Your task to perform on an android device: toggle notification dots Image 0: 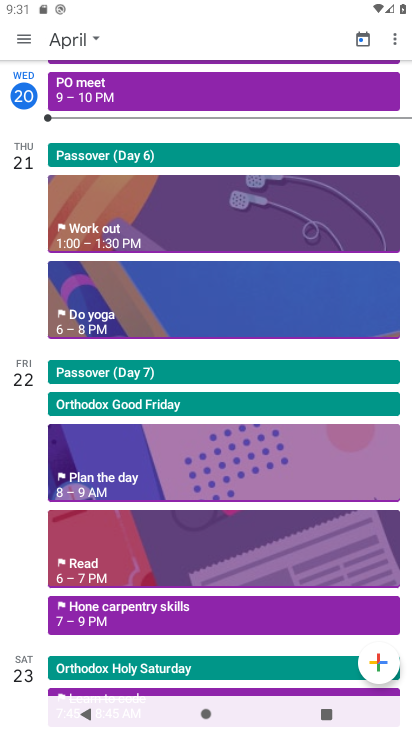
Step 0: click (126, 607)
Your task to perform on an android device: toggle notification dots Image 1: 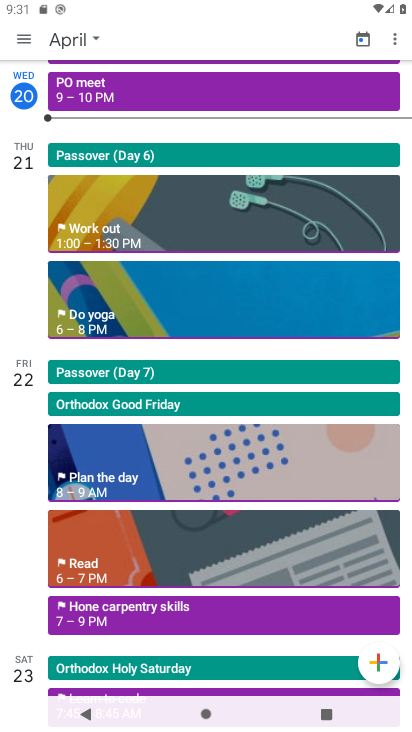
Step 1: press home button
Your task to perform on an android device: toggle notification dots Image 2: 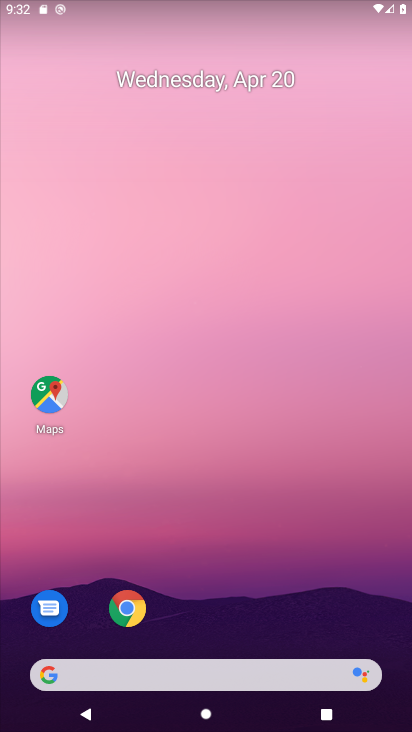
Step 2: drag from (155, 595) to (153, 145)
Your task to perform on an android device: toggle notification dots Image 3: 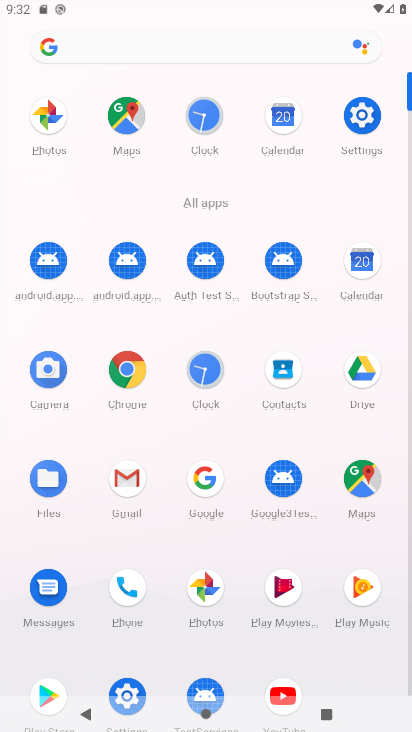
Step 3: click (354, 122)
Your task to perform on an android device: toggle notification dots Image 4: 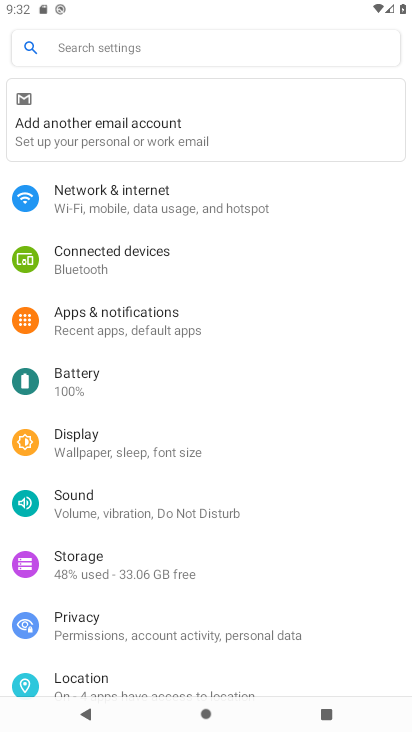
Step 4: click (95, 328)
Your task to perform on an android device: toggle notification dots Image 5: 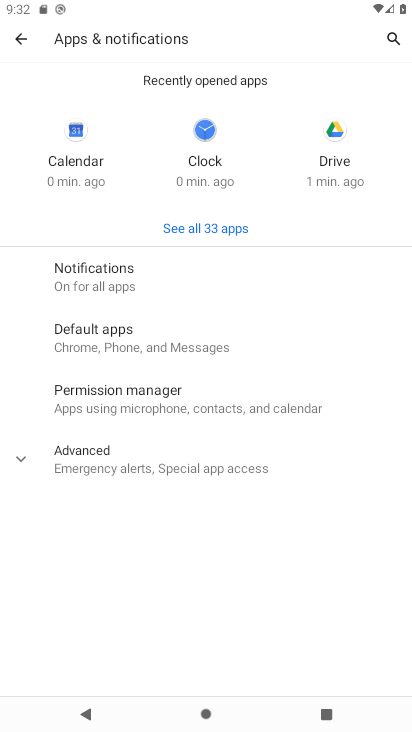
Step 5: click (74, 287)
Your task to perform on an android device: toggle notification dots Image 6: 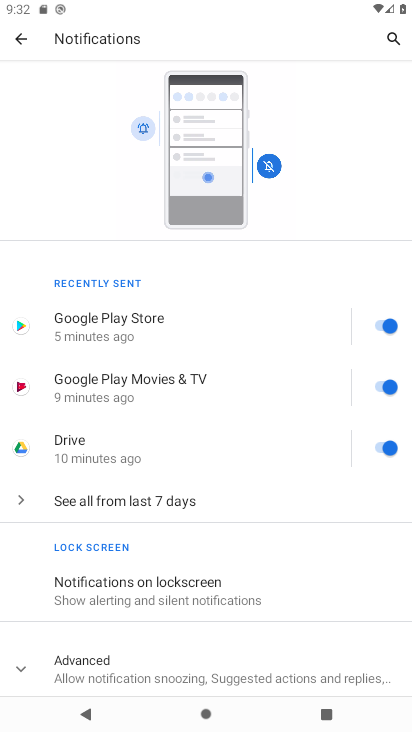
Step 6: drag from (126, 622) to (100, 340)
Your task to perform on an android device: toggle notification dots Image 7: 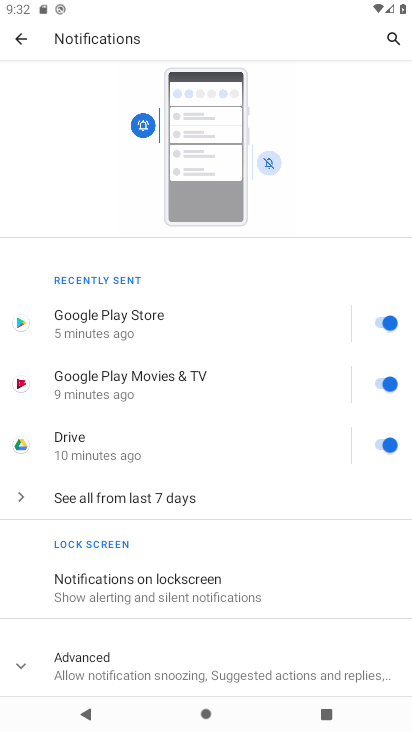
Step 7: click (23, 663)
Your task to perform on an android device: toggle notification dots Image 8: 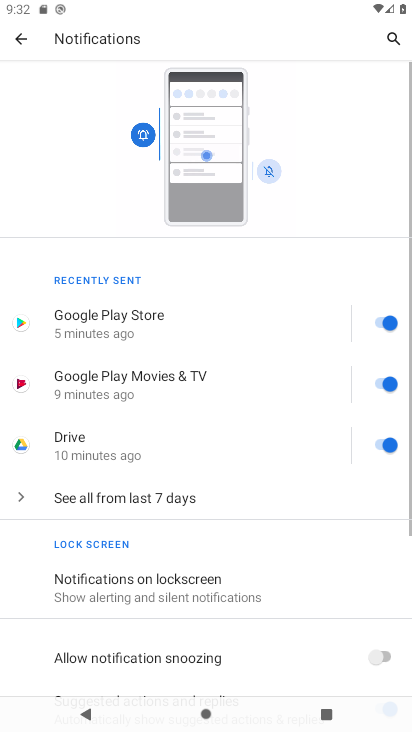
Step 8: drag from (167, 658) to (168, 295)
Your task to perform on an android device: toggle notification dots Image 9: 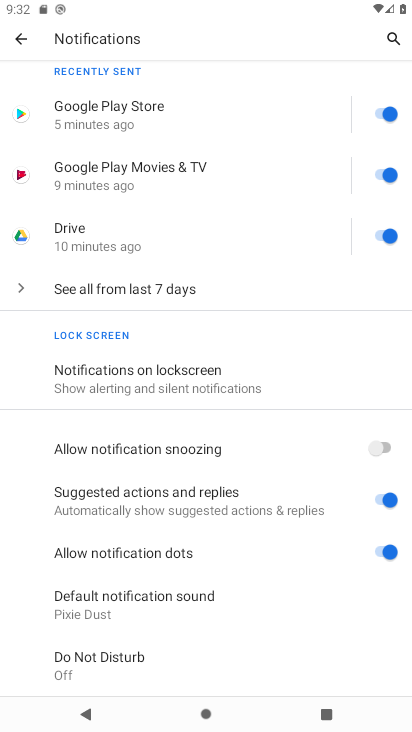
Step 9: click (377, 550)
Your task to perform on an android device: toggle notification dots Image 10: 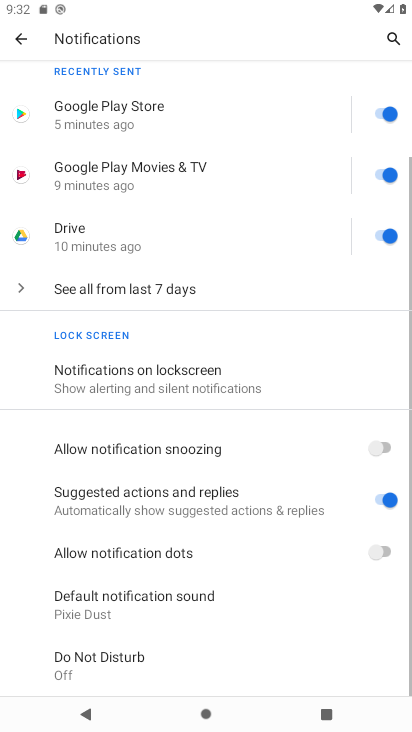
Step 10: task complete